Your task to perform on an android device: add a contact in the contacts app Image 0: 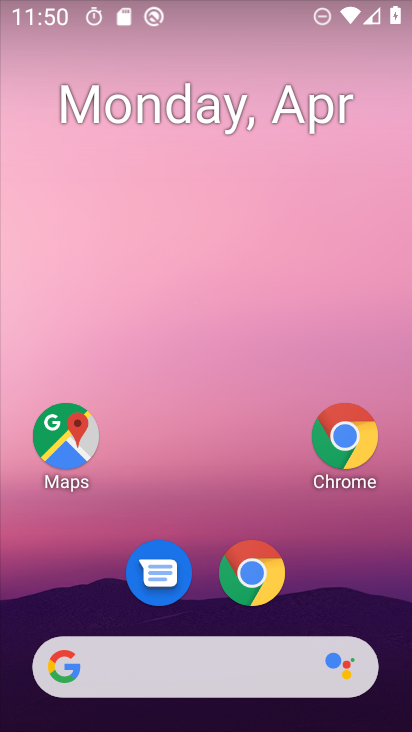
Step 0: drag from (297, 507) to (255, 145)
Your task to perform on an android device: add a contact in the contacts app Image 1: 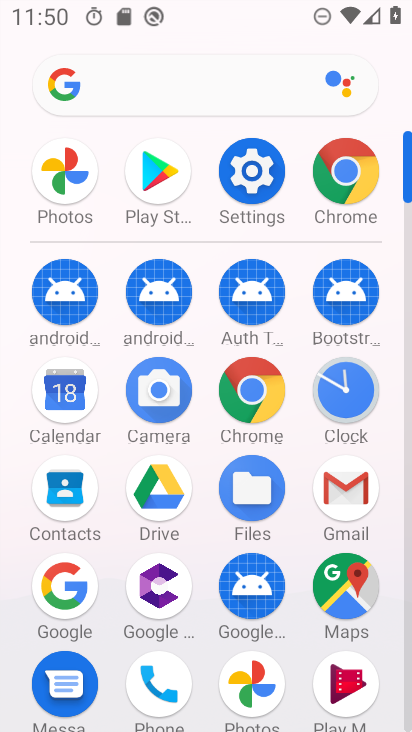
Step 1: click (42, 502)
Your task to perform on an android device: add a contact in the contacts app Image 2: 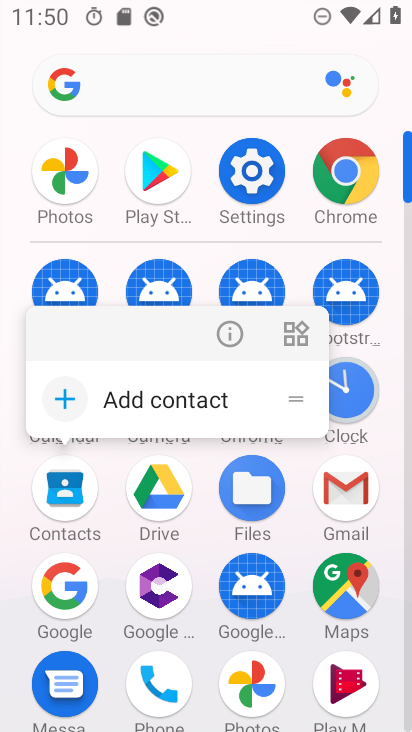
Step 2: click (42, 503)
Your task to perform on an android device: add a contact in the contacts app Image 3: 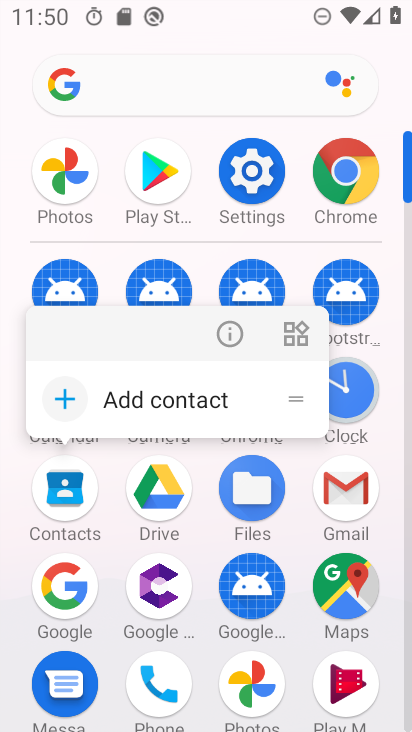
Step 3: click (42, 502)
Your task to perform on an android device: add a contact in the contacts app Image 4: 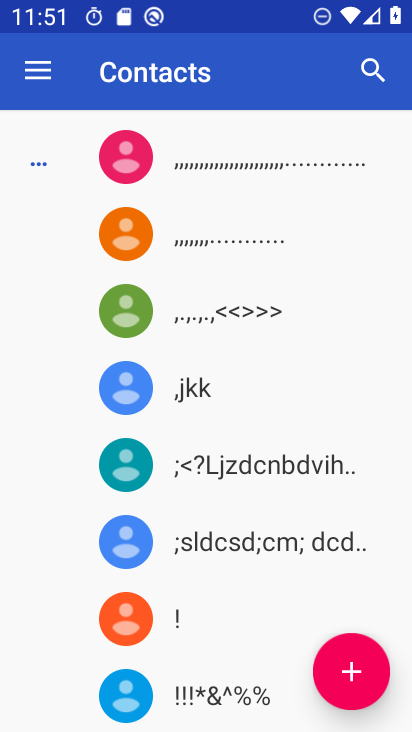
Step 4: click (350, 660)
Your task to perform on an android device: add a contact in the contacts app Image 5: 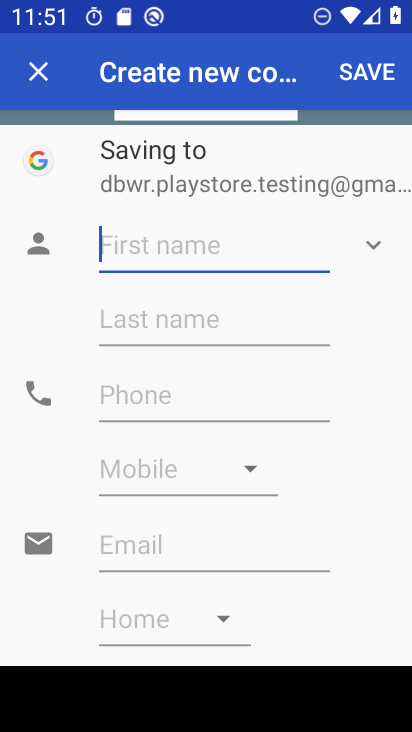
Step 5: type "ram"
Your task to perform on an android device: add a contact in the contacts app Image 6: 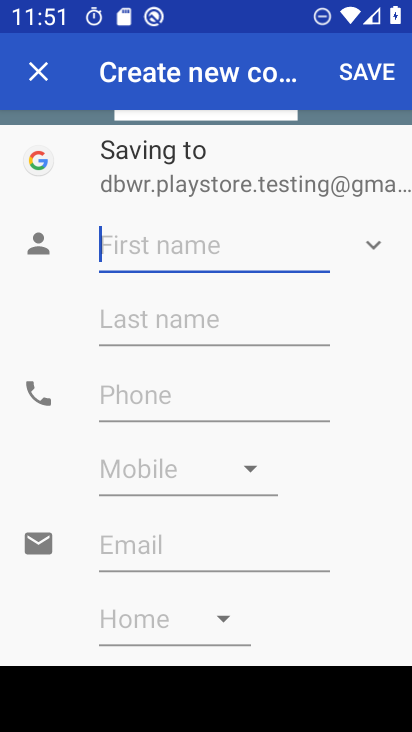
Step 6: click (199, 385)
Your task to perform on an android device: add a contact in the contacts app Image 7: 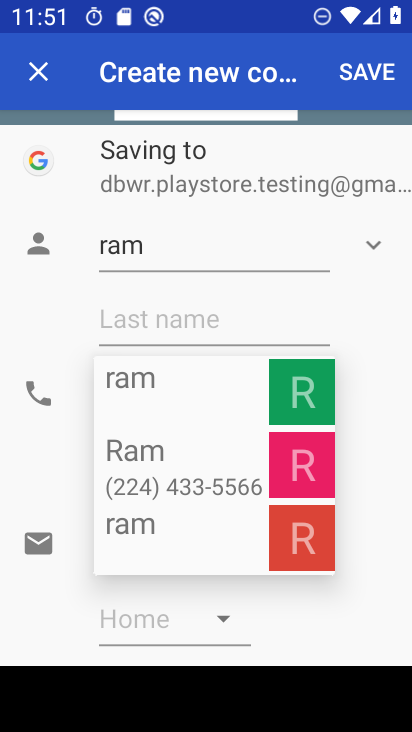
Step 7: type "897656789"
Your task to perform on an android device: add a contact in the contacts app Image 8: 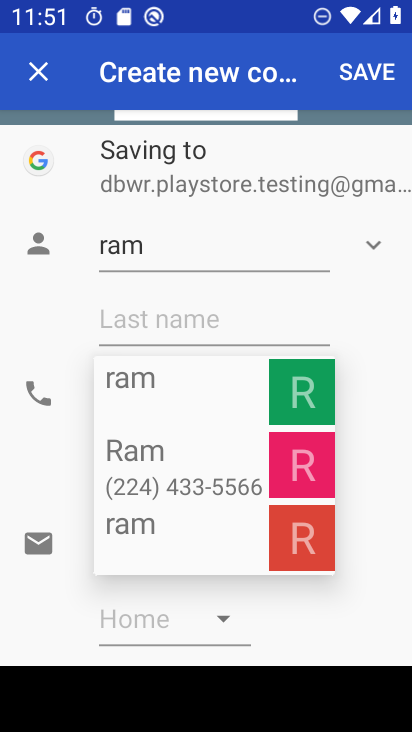
Step 8: click (381, 430)
Your task to perform on an android device: add a contact in the contacts app Image 9: 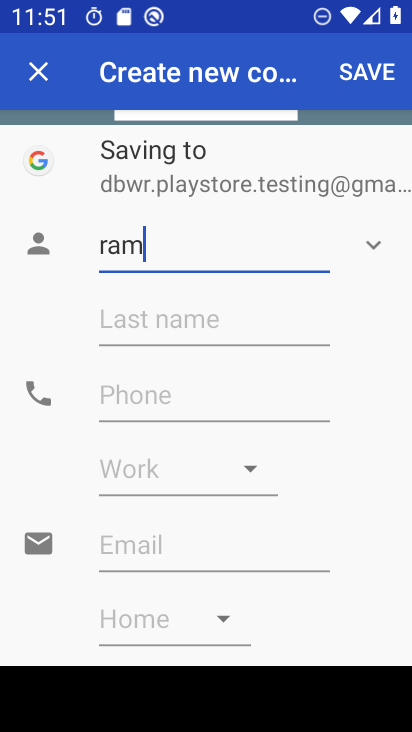
Step 9: click (125, 376)
Your task to perform on an android device: add a contact in the contacts app Image 10: 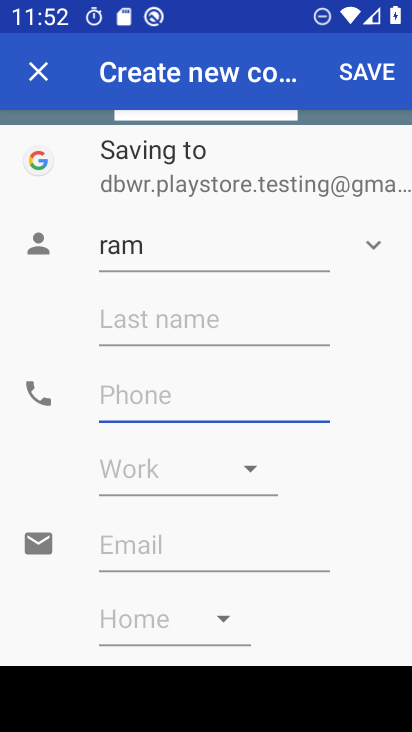
Step 10: type "7667897678"
Your task to perform on an android device: add a contact in the contacts app Image 11: 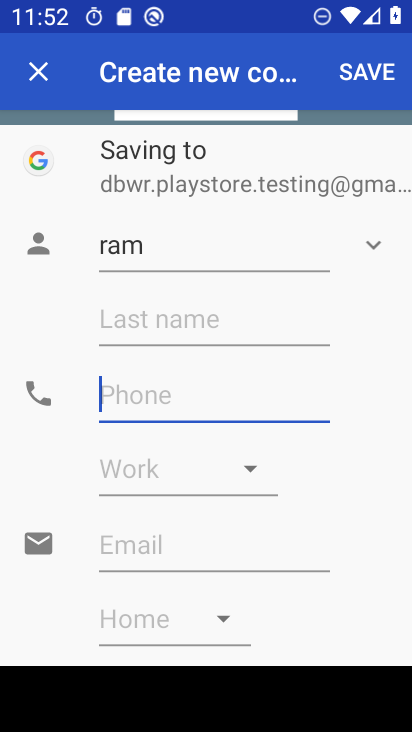
Step 11: click (343, 566)
Your task to perform on an android device: add a contact in the contacts app Image 12: 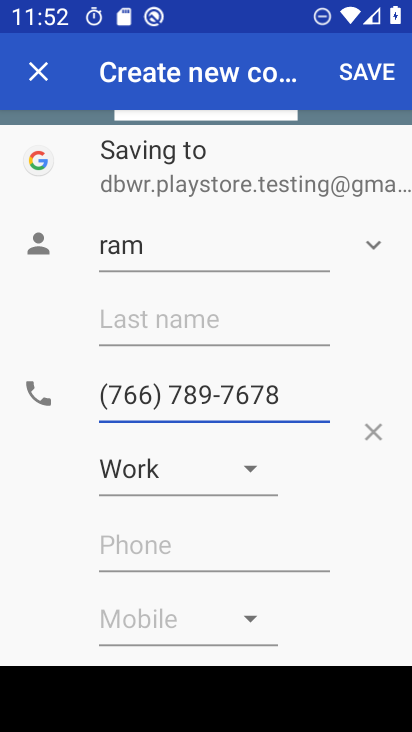
Step 12: click (378, 65)
Your task to perform on an android device: add a contact in the contacts app Image 13: 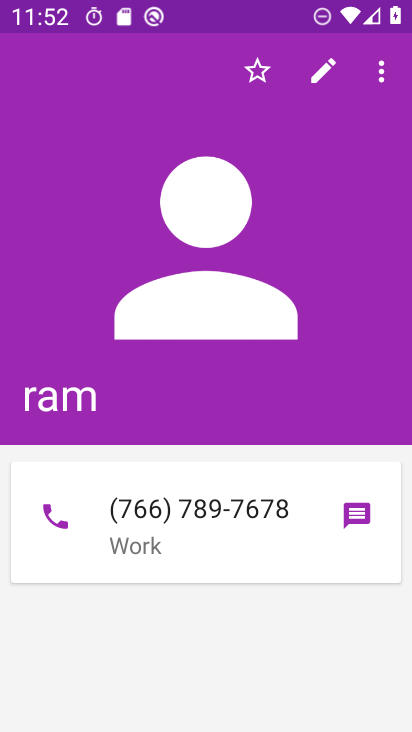
Step 13: task complete